Your task to perform on an android device: Open Youtube and go to "Your channel" Image 0: 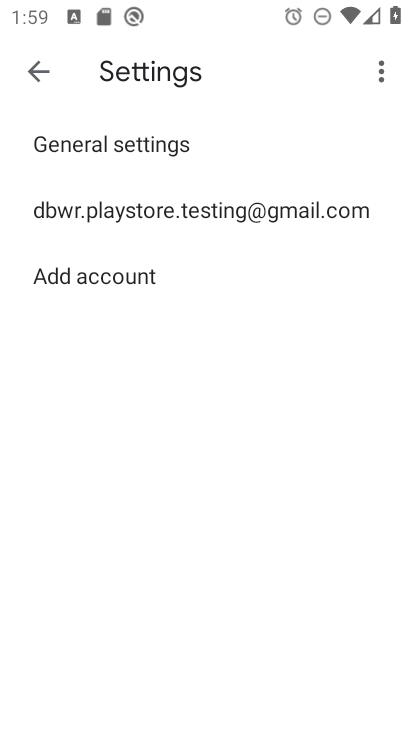
Step 0: press home button
Your task to perform on an android device: Open Youtube and go to "Your channel" Image 1: 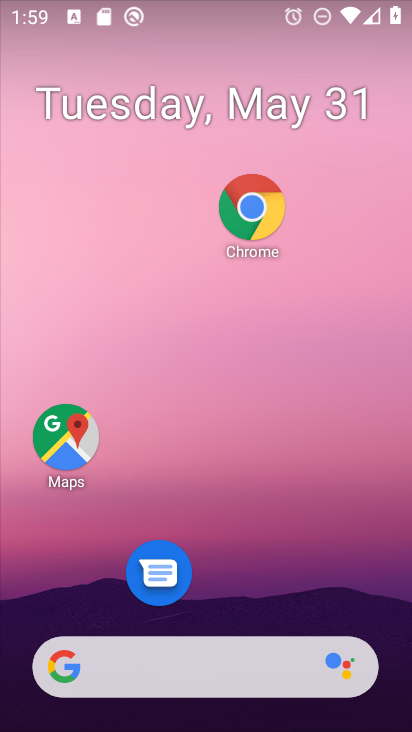
Step 1: drag from (162, 603) to (163, 5)
Your task to perform on an android device: Open Youtube and go to "Your channel" Image 2: 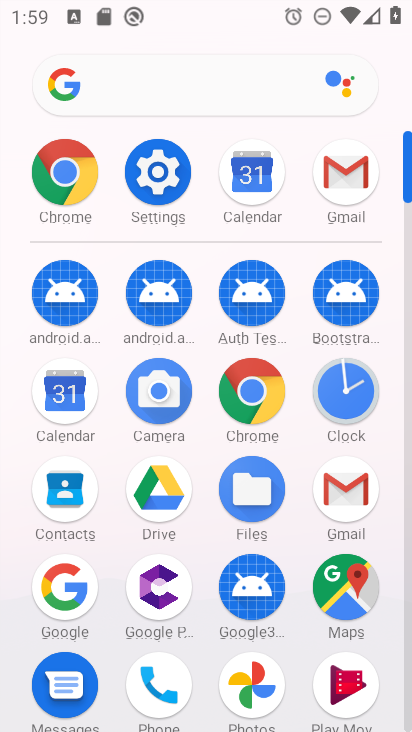
Step 2: drag from (205, 578) to (191, 110)
Your task to perform on an android device: Open Youtube and go to "Your channel" Image 3: 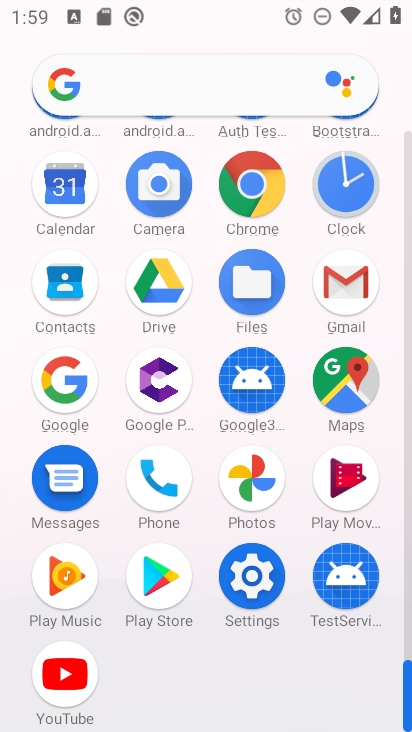
Step 3: click (71, 687)
Your task to perform on an android device: Open Youtube and go to "Your channel" Image 4: 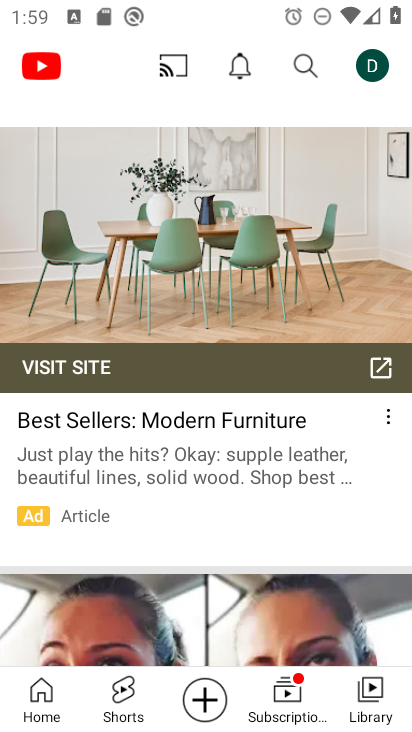
Step 4: click (375, 68)
Your task to perform on an android device: Open Youtube and go to "Your channel" Image 5: 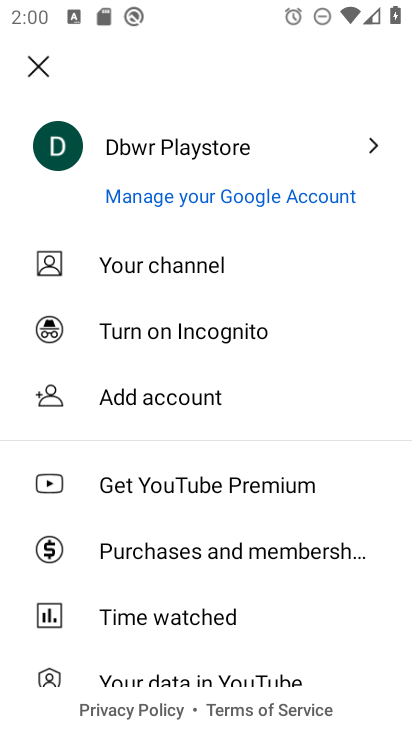
Step 5: click (169, 270)
Your task to perform on an android device: Open Youtube and go to "Your channel" Image 6: 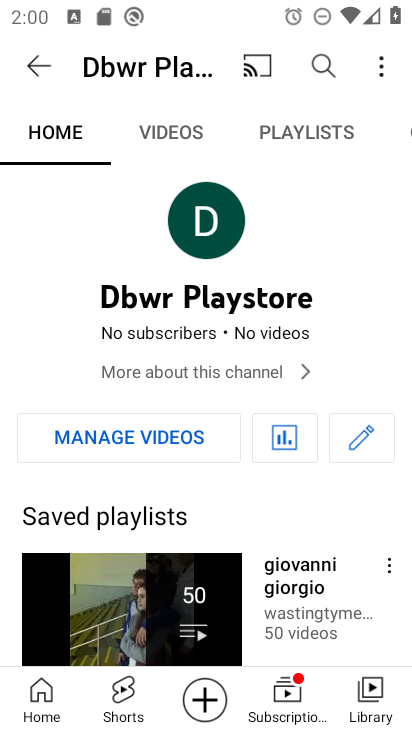
Step 6: task complete